Your task to perform on an android device: View the shopping cart on target.com. Add alienware area 51 to the cart on target.com Image 0: 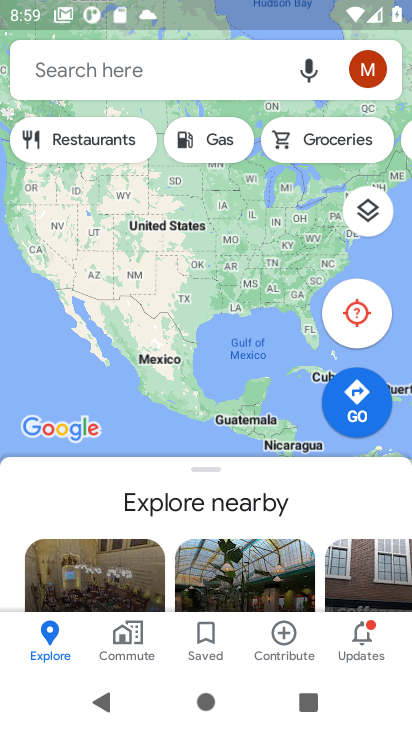
Step 0: press home button
Your task to perform on an android device: View the shopping cart on target.com. Add alienware area 51 to the cart on target.com Image 1: 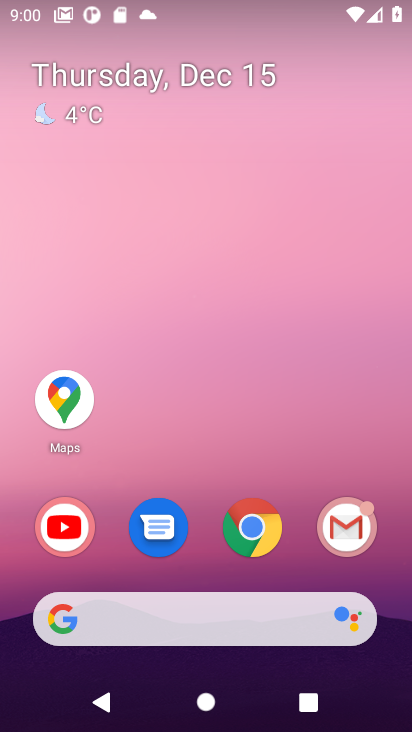
Step 1: click (245, 526)
Your task to perform on an android device: View the shopping cart on target.com. Add alienware area 51 to the cart on target.com Image 2: 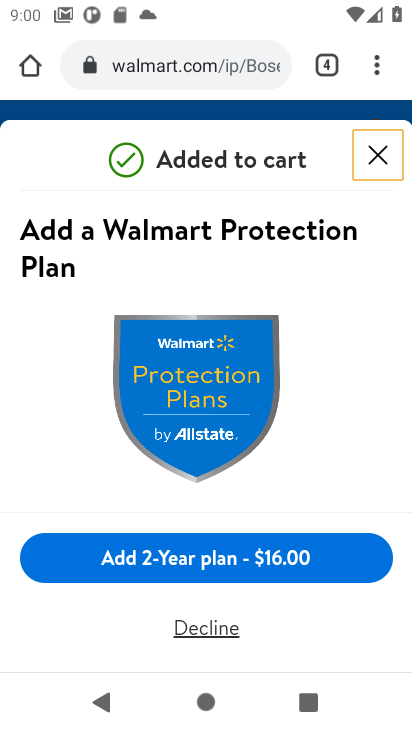
Step 2: click (188, 59)
Your task to perform on an android device: View the shopping cart on target.com. Add alienware area 51 to the cart on target.com Image 3: 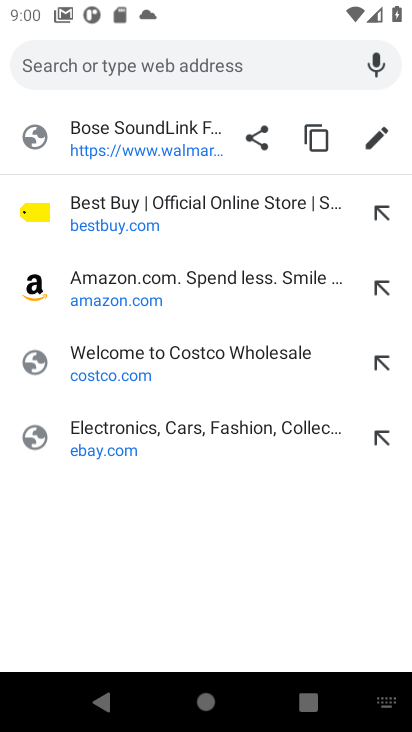
Step 3: type "target"
Your task to perform on an android device: View the shopping cart on target.com. Add alienware area 51 to the cart on target.com Image 4: 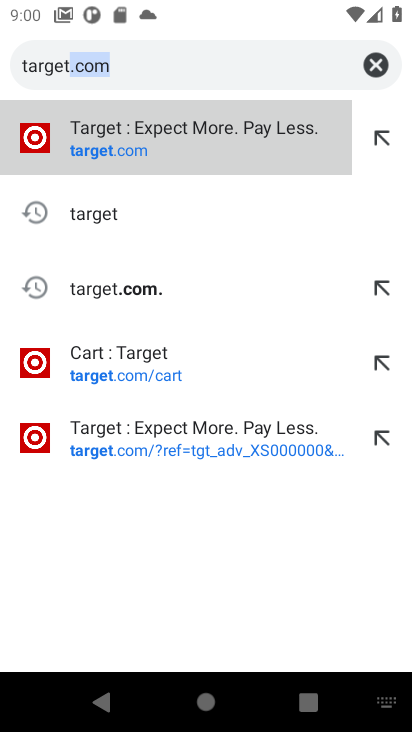
Step 4: click (126, 154)
Your task to perform on an android device: View the shopping cart on target.com. Add alienware area 51 to the cart on target.com Image 5: 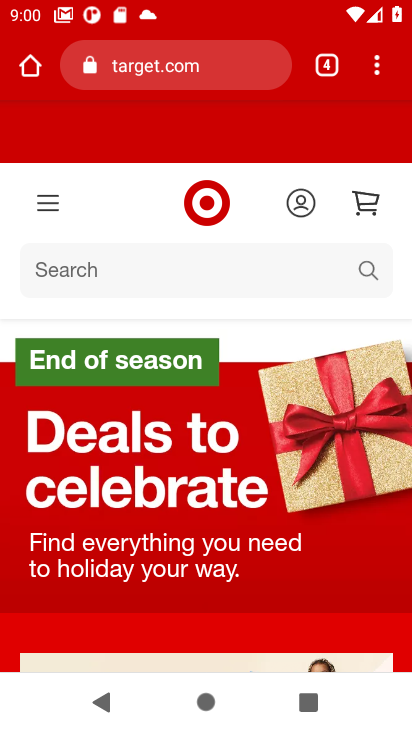
Step 5: click (91, 260)
Your task to perform on an android device: View the shopping cart on target.com. Add alienware area 51 to the cart on target.com Image 6: 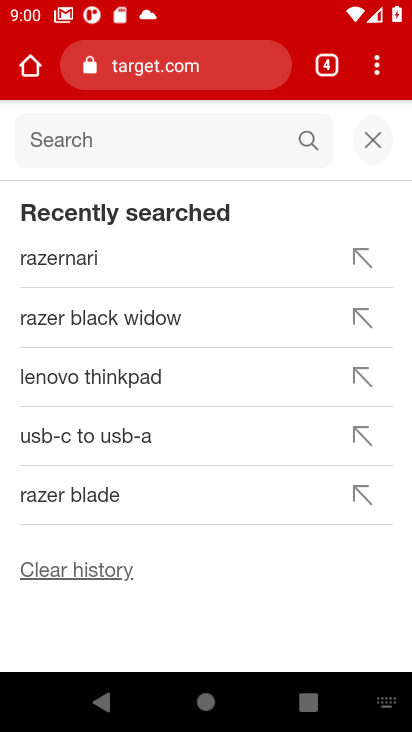
Step 6: type "alienware area 51"
Your task to perform on an android device: View the shopping cart on target.com. Add alienware area 51 to the cart on target.com Image 7: 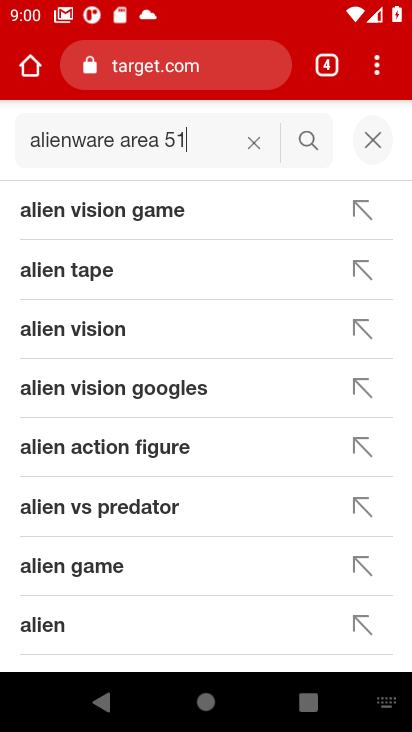
Step 7: click (314, 144)
Your task to perform on an android device: View the shopping cart on target.com. Add alienware area 51 to the cart on target.com Image 8: 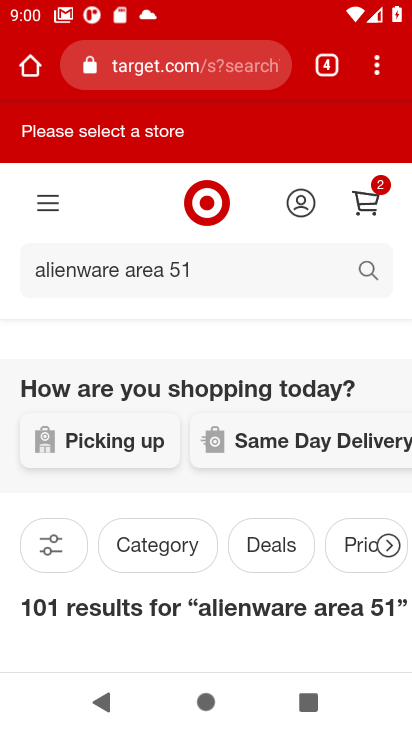
Step 8: click (366, 277)
Your task to perform on an android device: View the shopping cart on target.com. Add alienware area 51 to the cart on target.com Image 9: 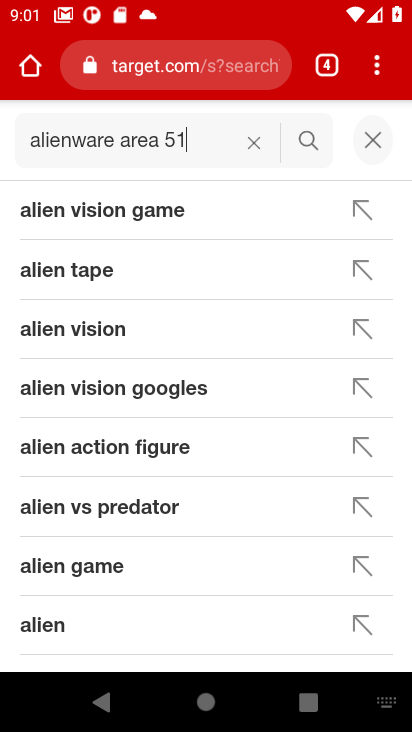
Step 9: click (302, 138)
Your task to perform on an android device: View the shopping cart on target.com. Add alienware area 51 to the cart on target.com Image 10: 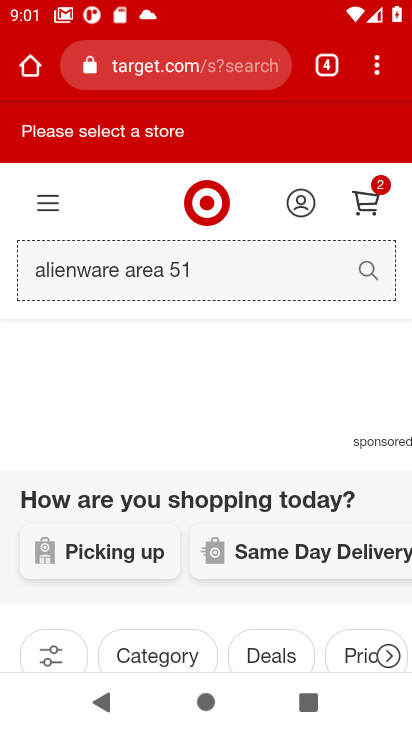
Step 10: task complete